Your task to perform on an android device: What's the weather? Image 0: 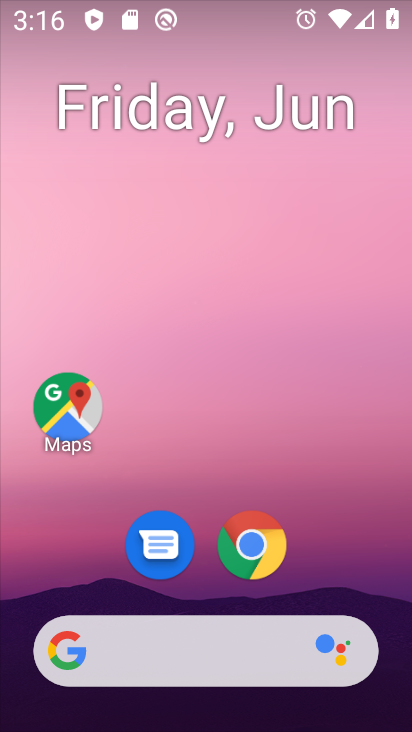
Step 0: click (204, 653)
Your task to perform on an android device: What's the weather? Image 1: 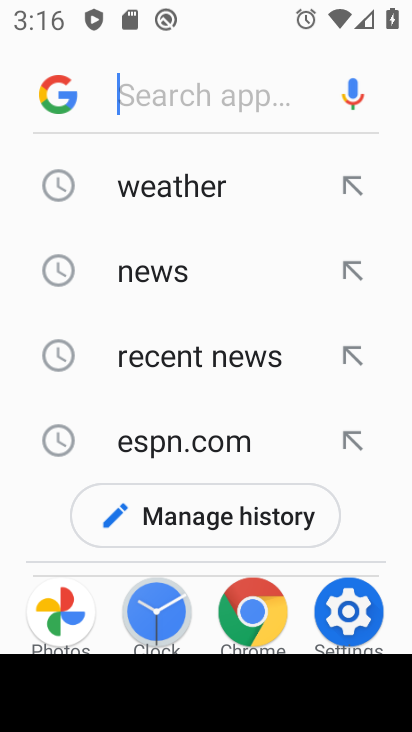
Step 1: type "what's the weather"
Your task to perform on an android device: What's the weather? Image 2: 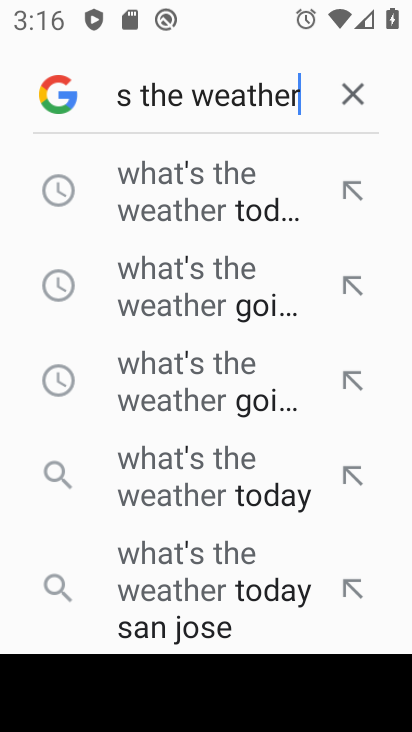
Step 2: drag from (210, 458) to (288, 100)
Your task to perform on an android device: What's the weather? Image 3: 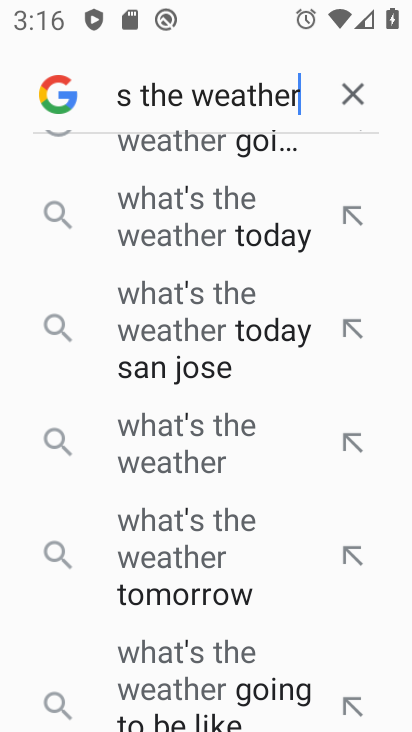
Step 3: click (190, 437)
Your task to perform on an android device: What's the weather? Image 4: 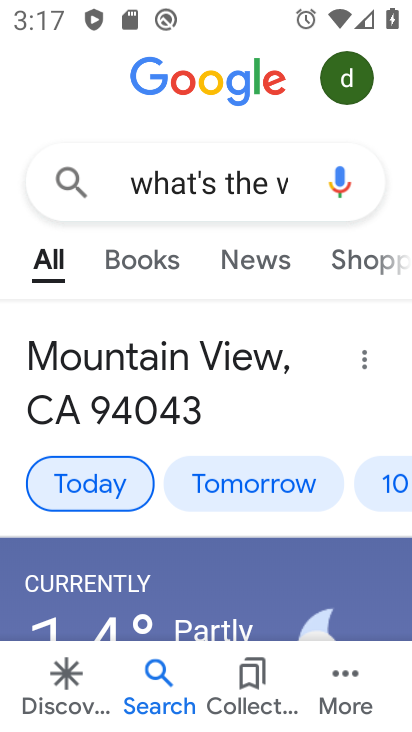
Step 4: task complete